Your task to perform on an android device: Do I have any events today? Image 0: 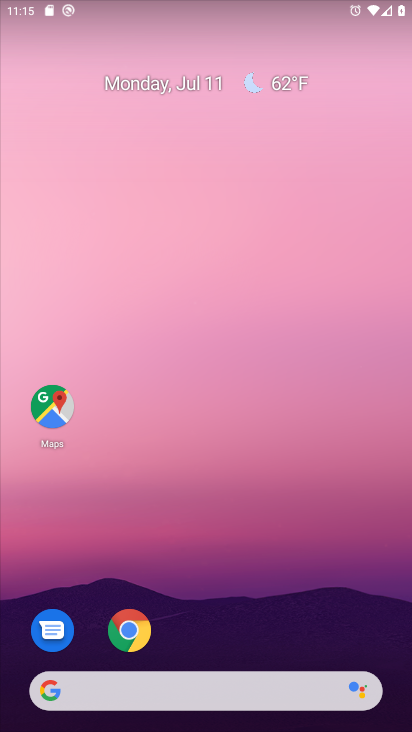
Step 0: drag from (218, 612) to (198, 16)
Your task to perform on an android device: Do I have any events today? Image 1: 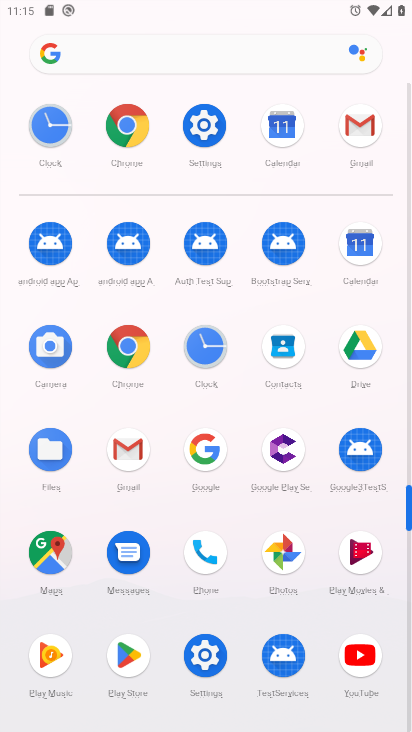
Step 1: click (281, 125)
Your task to perform on an android device: Do I have any events today? Image 2: 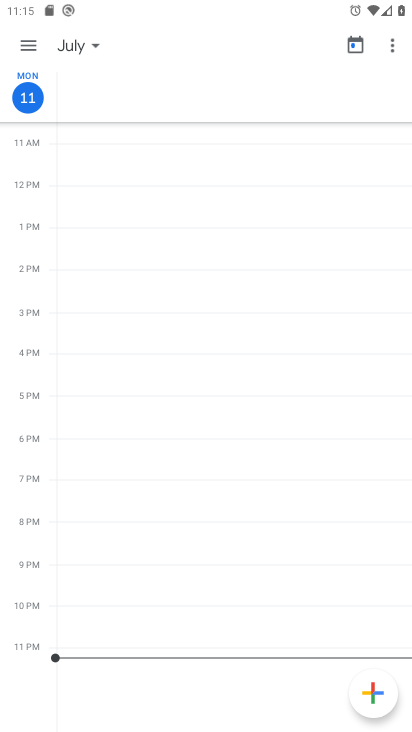
Step 2: task complete